Your task to perform on an android device: see tabs open on other devices in the chrome app Image 0: 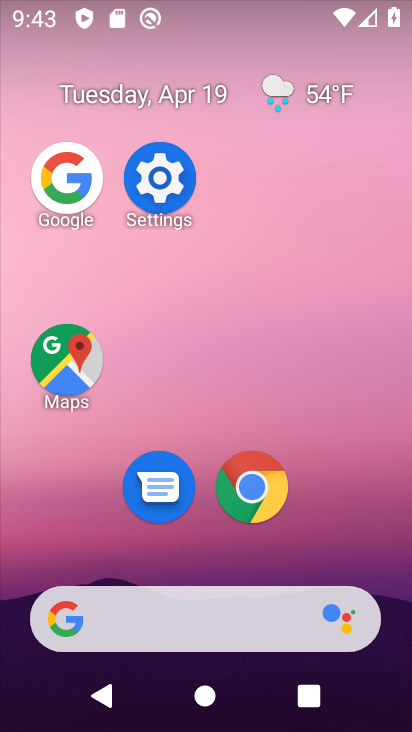
Step 0: click (254, 493)
Your task to perform on an android device: see tabs open on other devices in the chrome app Image 1: 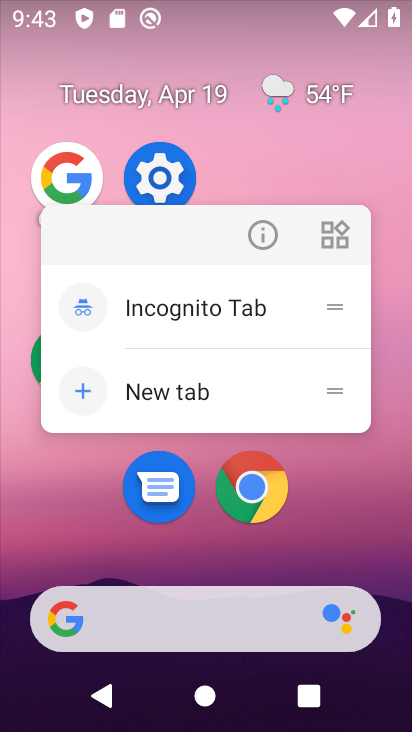
Step 1: click (254, 493)
Your task to perform on an android device: see tabs open on other devices in the chrome app Image 2: 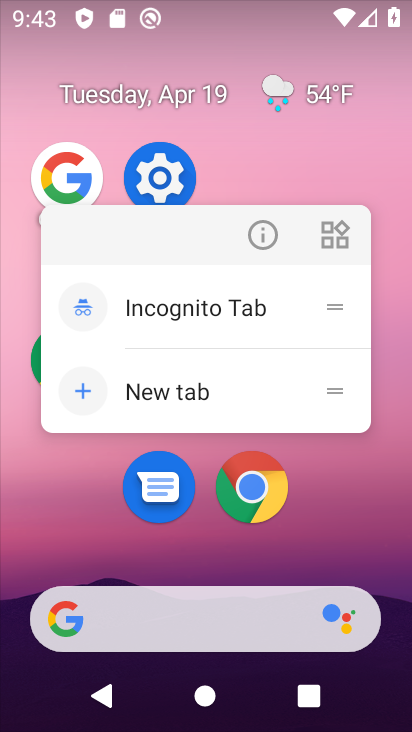
Step 2: click (254, 493)
Your task to perform on an android device: see tabs open on other devices in the chrome app Image 3: 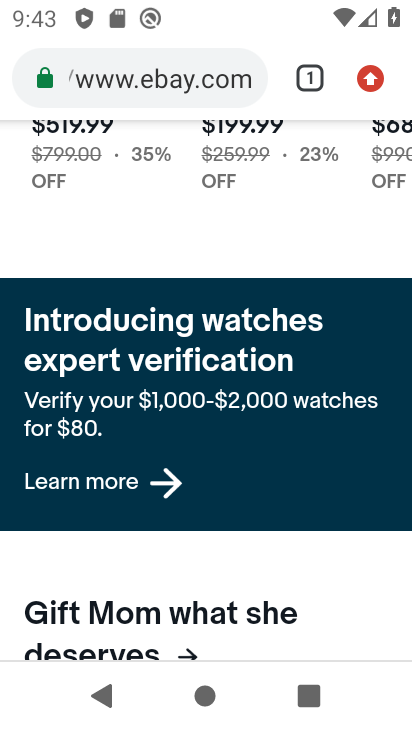
Step 3: click (368, 73)
Your task to perform on an android device: see tabs open on other devices in the chrome app Image 4: 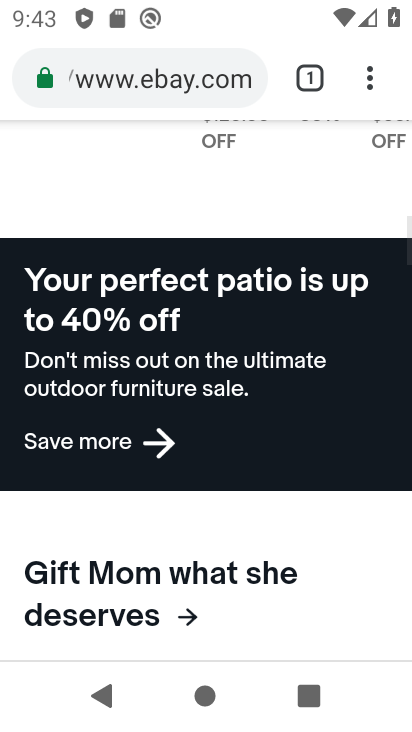
Step 4: click (368, 73)
Your task to perform on an android device: see tabs open on other devices in the chrome app Image 5: 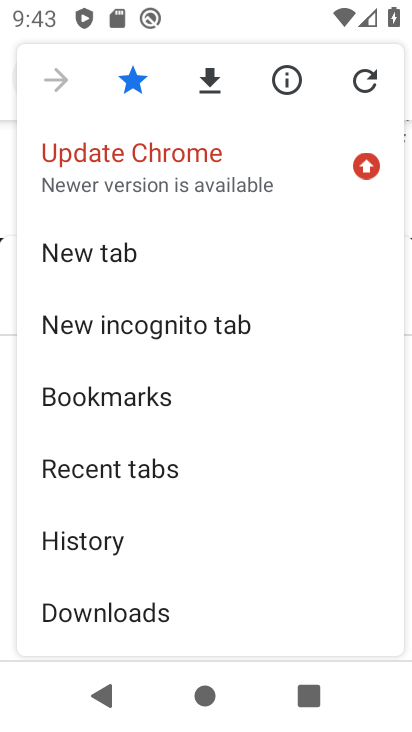
Step 5: click (129, 476)
Your task to perform on an android device: see tabs open on other devices in the chrome app Image 6: 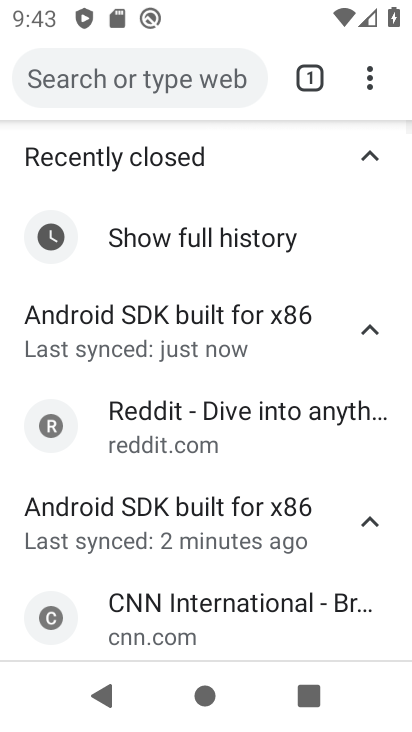
Step 6: task complete